Your task to perform on an android device: add a contact in the contacts app Image 0: 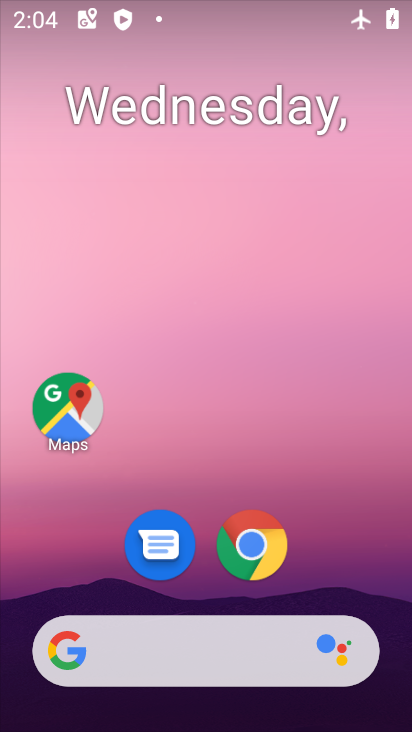
Step 0: drag from (331, 535) to (291, 31)
Your task to perform on an android device: add a contact in the contacts app Image 1: 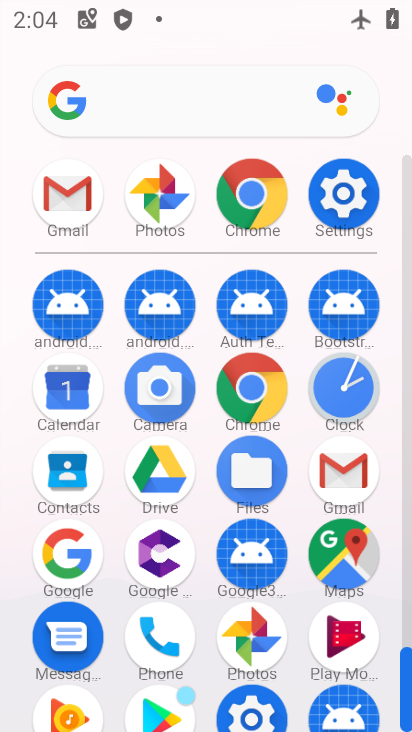
Step 1: click (63, 469)
Your task to perform on an android device: add a contact in the contacts app Image 2: 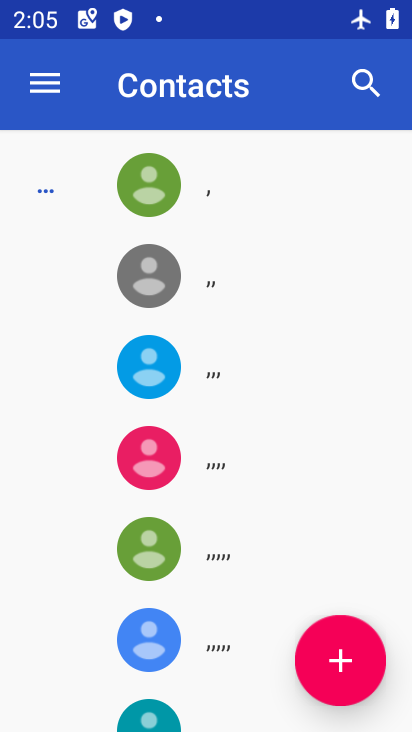
Step 2: click (352, 665)
Your task to perform on an android device: add a contact in the contacts app Image 3: 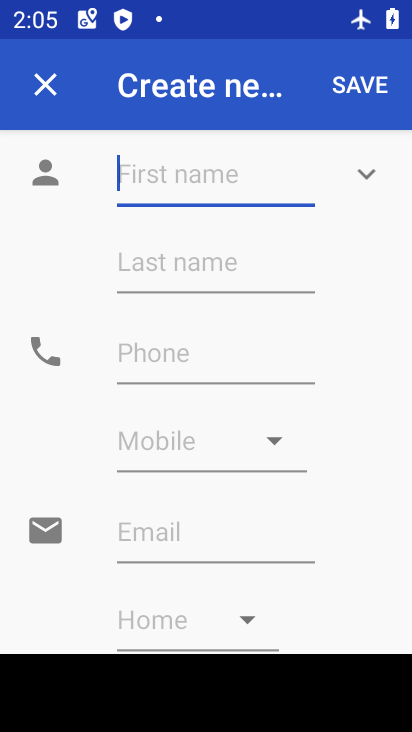
Step 3: type "runway"
Your task to perform on an android device: add a contact in the contacts app Image 4: 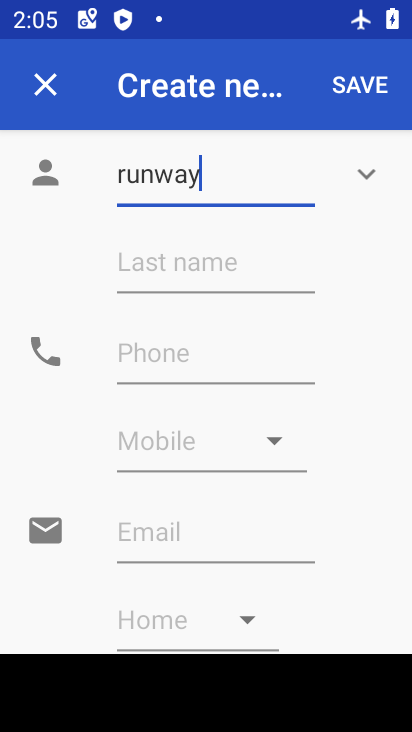
Step 4: click (356, 100)
Your task to perform on an android device: add a contact in the contacts app Image 5: 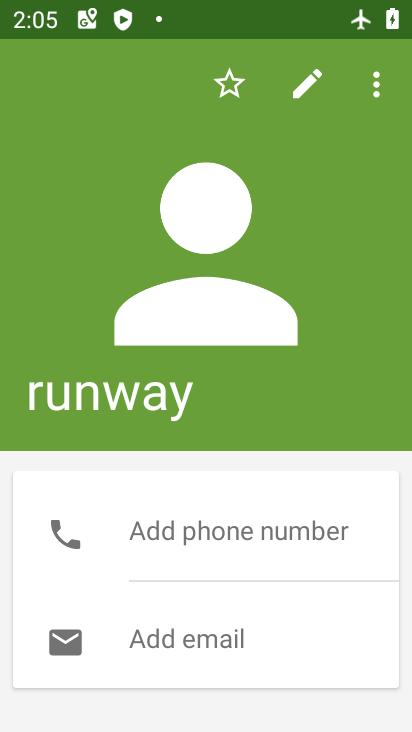
Step 5: task complete